Your task to perform on an android device: Search for the best custom wallets on Etsy. Image 0: 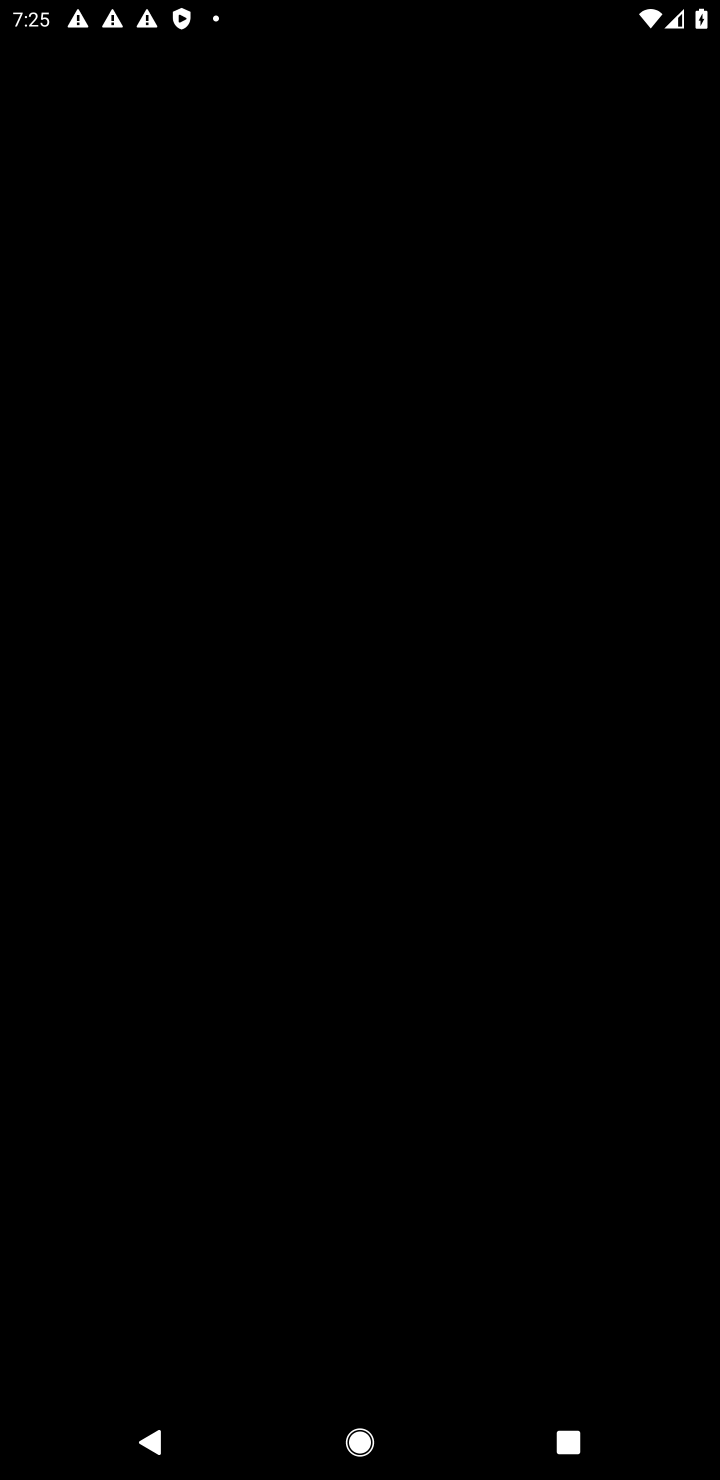
Step 0: press home button
Your task to perform on an android device: Search for the best custom wallets on Etsy. Image 1: 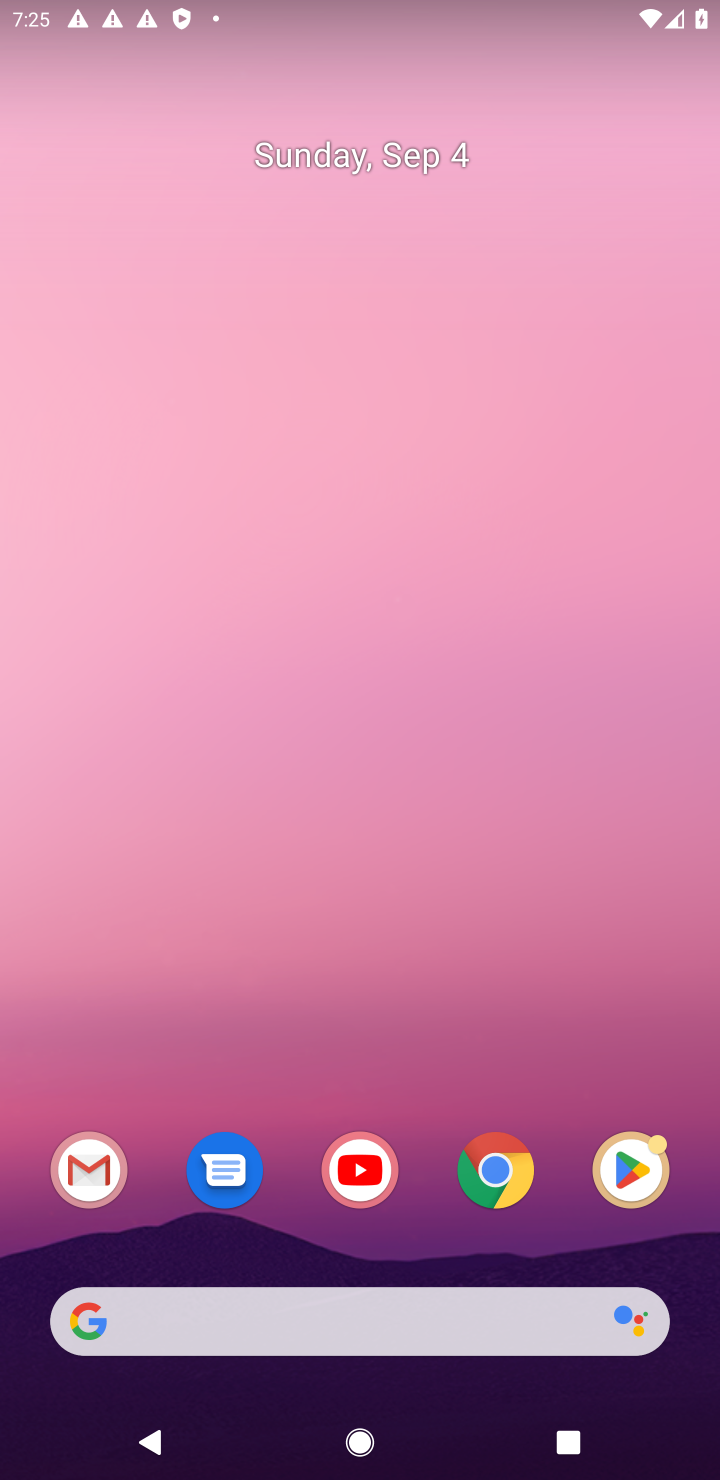
Step 1: click (492, 1176)
Your task to perform on an android device: Search for the best custom wallets on Etsy. Image 2: 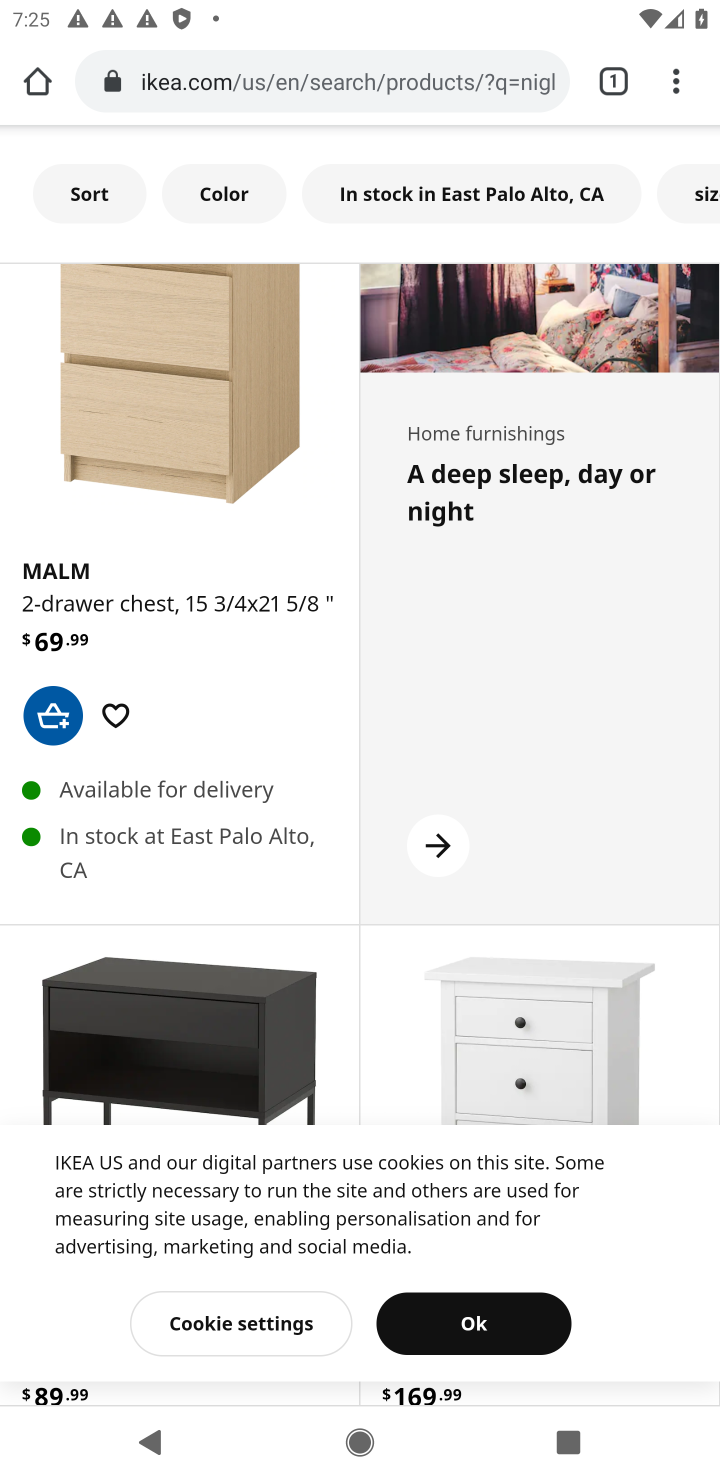
Step 2: click (400, 75)
Your task to perform on an android device: Search for the best custom wallets on Etsy. Image 3: 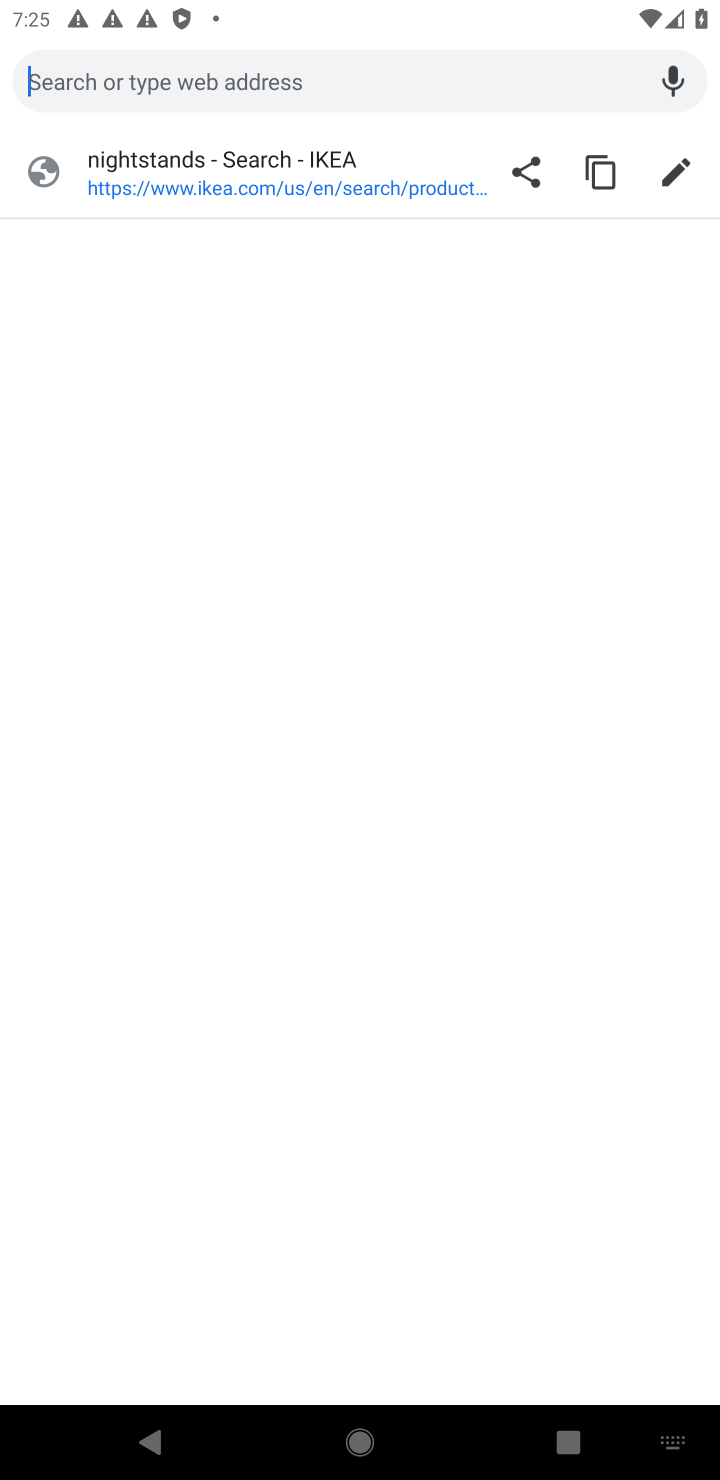
Step 3: type "Etsy"
Your task to perform on an android device: Search for the best custom wallets on Etsy. Image 4: 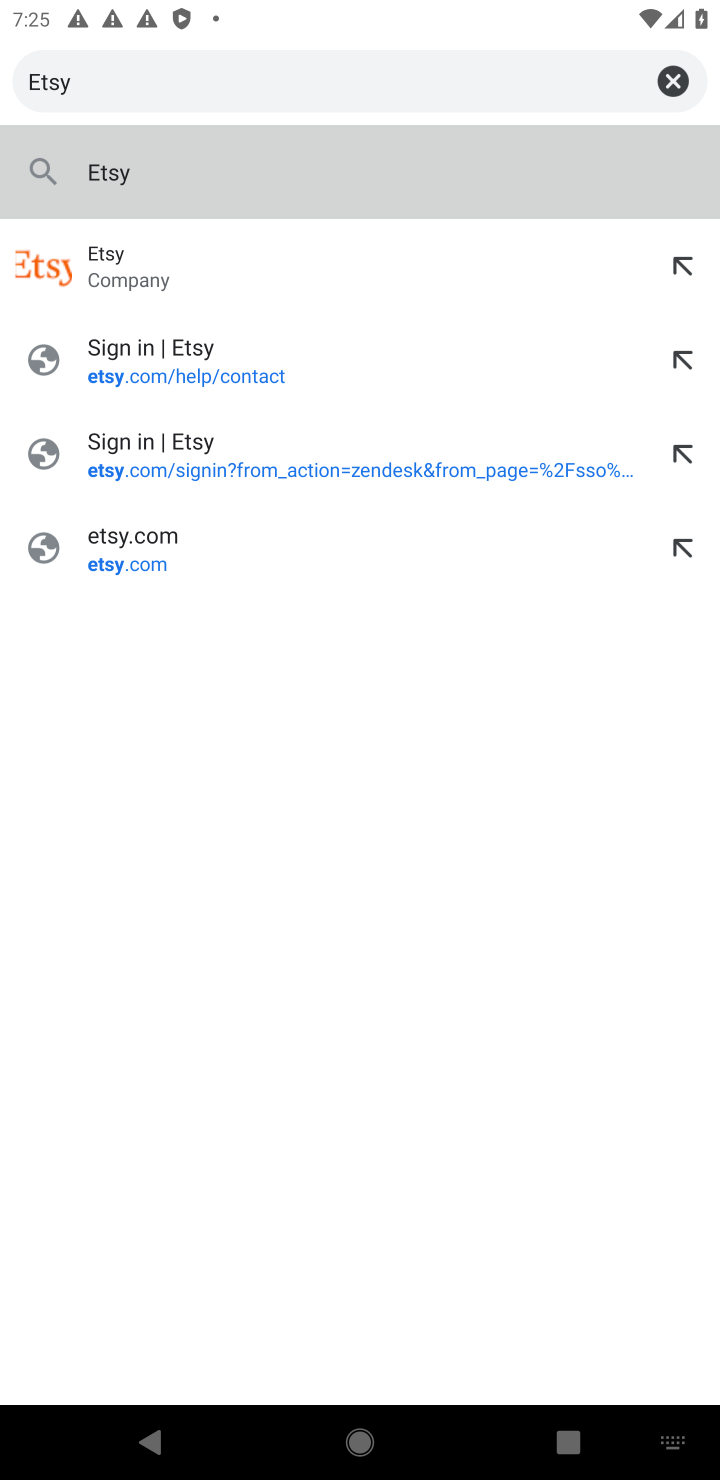
Step 4: click (121, 173)
Your task to perform on an android device: Search for the best custom wallets on Etsy. Image 5: 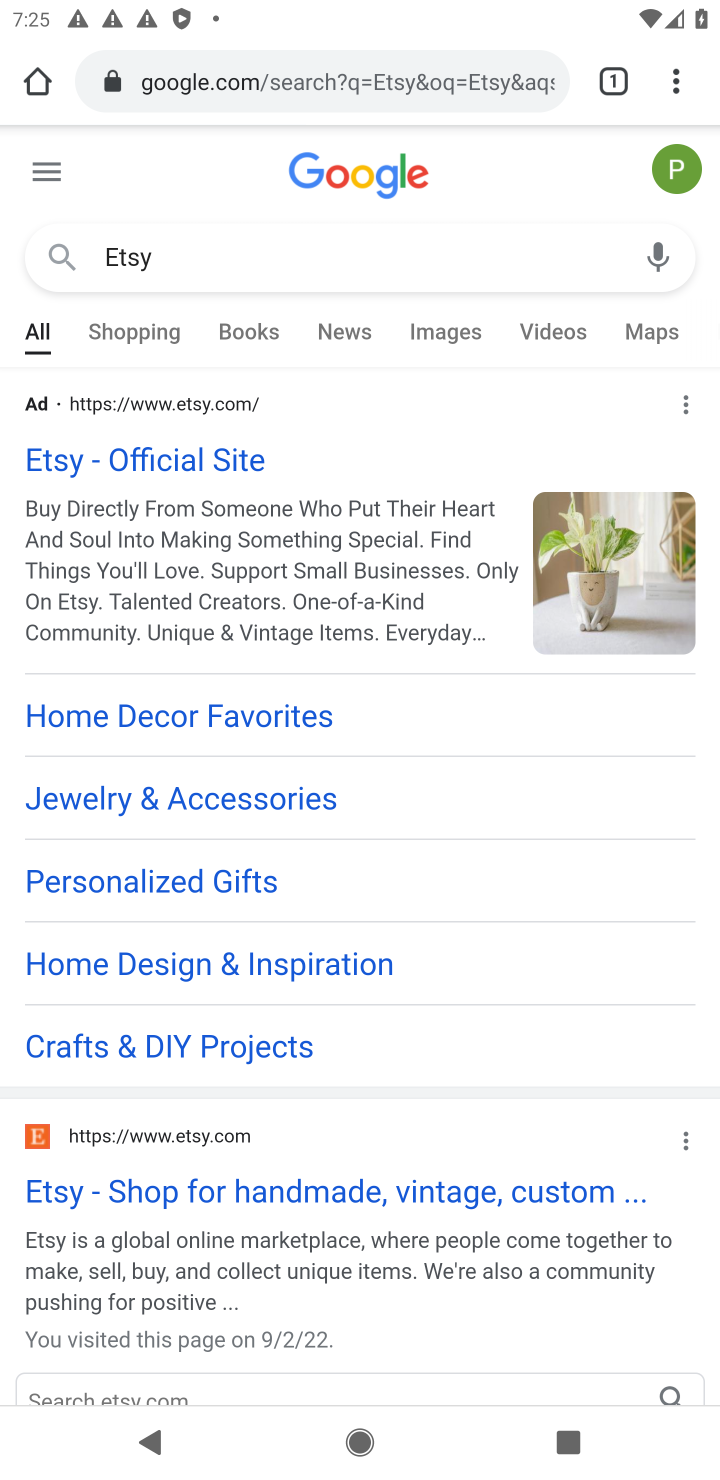
Step 5: click (203, 467)
Your task to perform on an android device: Search for the best custom wallets on Etsy. Image 6: 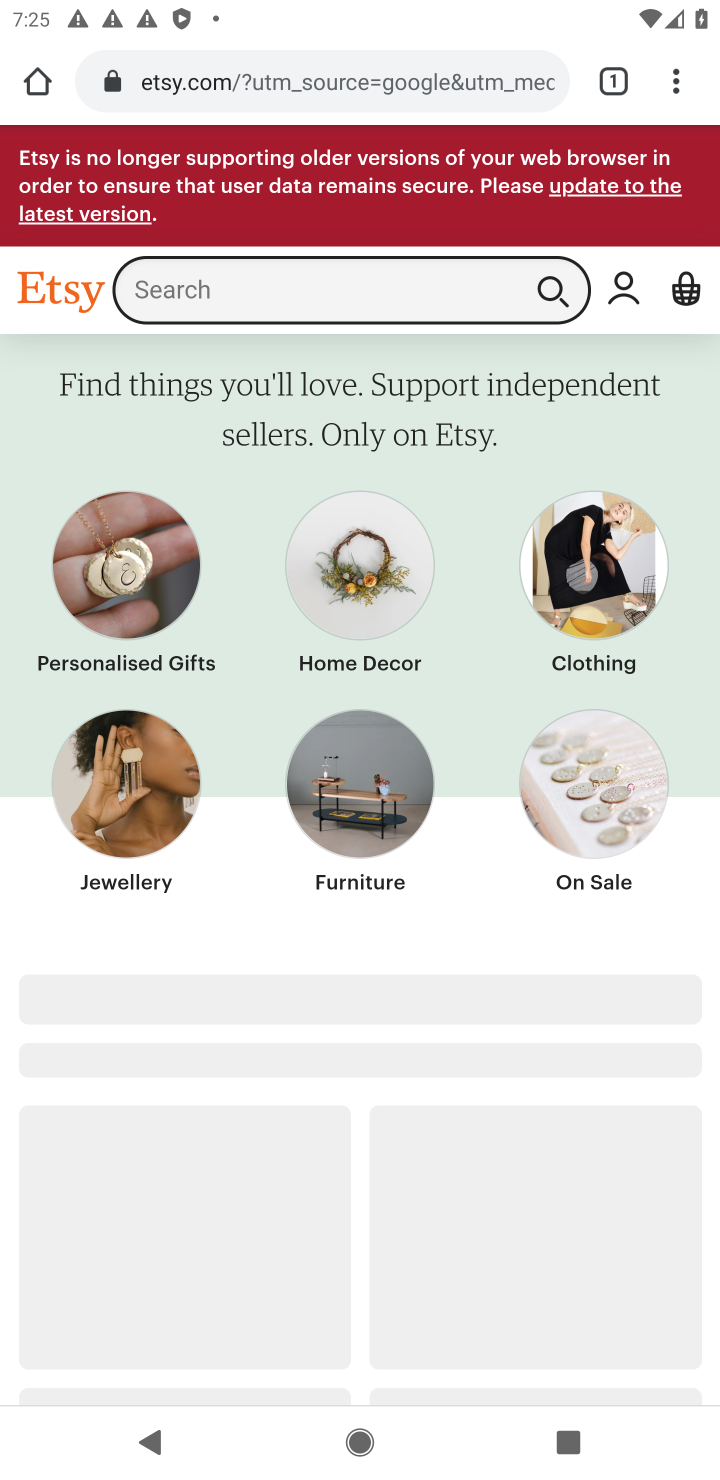
Step 6: click (279, 291)
Your task to perform on an android device: Search for the best custom wallets on Etsy. Image 7: 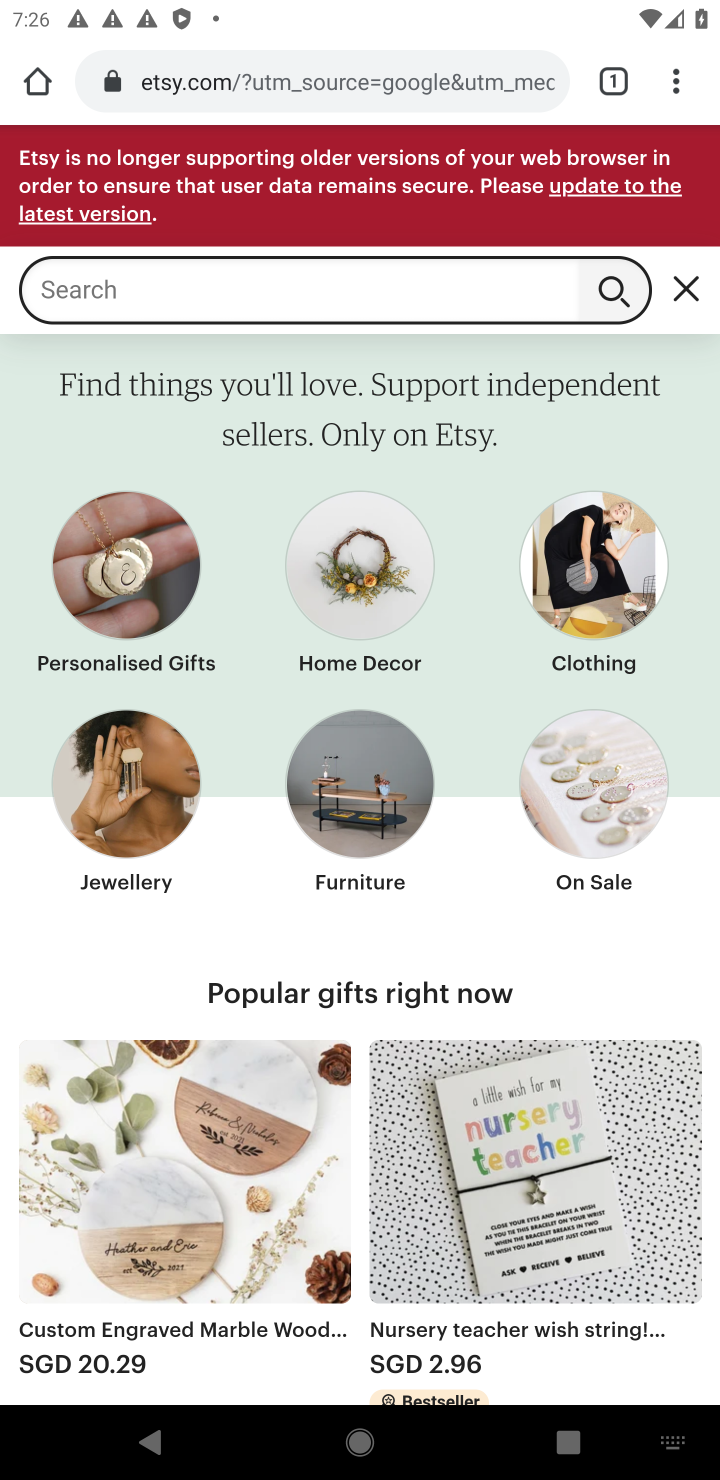
Step 7: type "best custom wallets"
Your task to perform on an android device: Search for the best custom wallets on Etsy. Image 8: 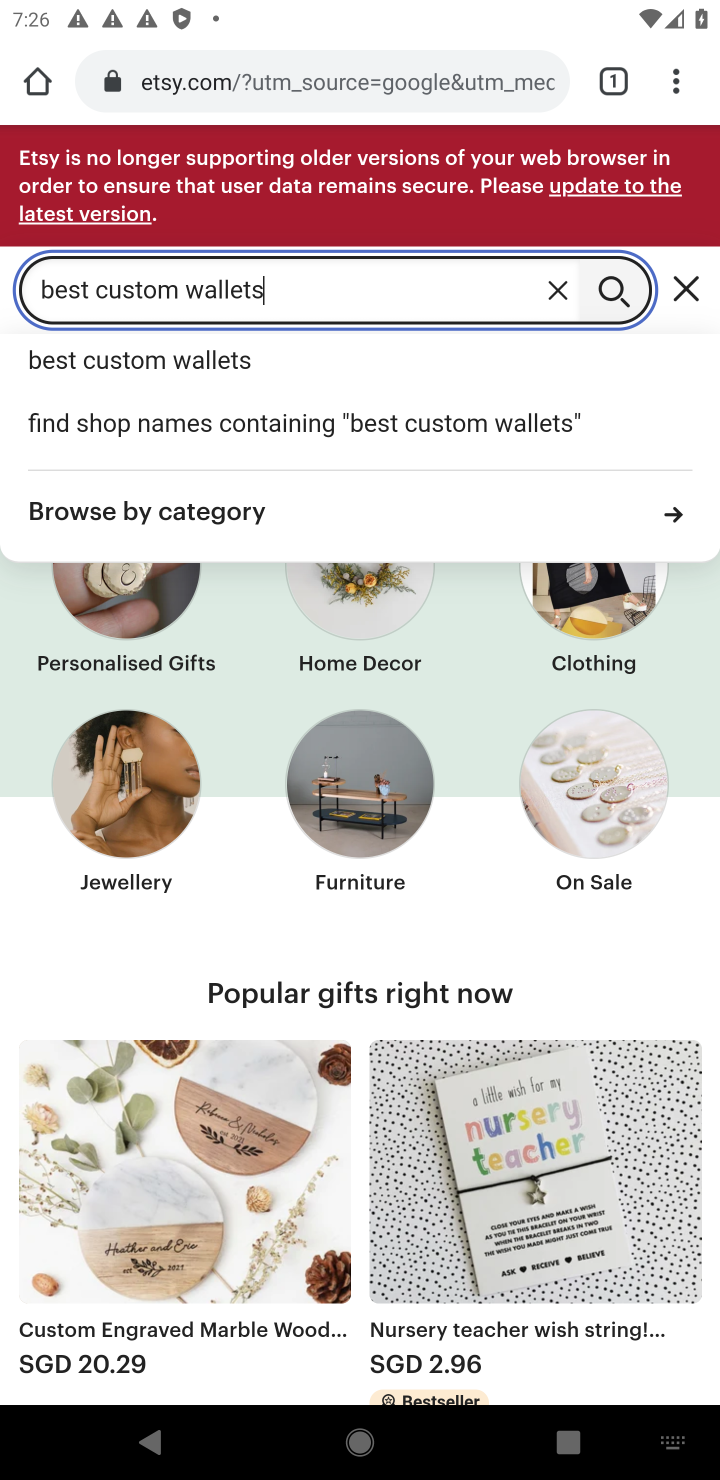
Step 8: click (199, 361)
Your task to perform on an android device: Search for the best custom wallets on Etsy. Image 9: 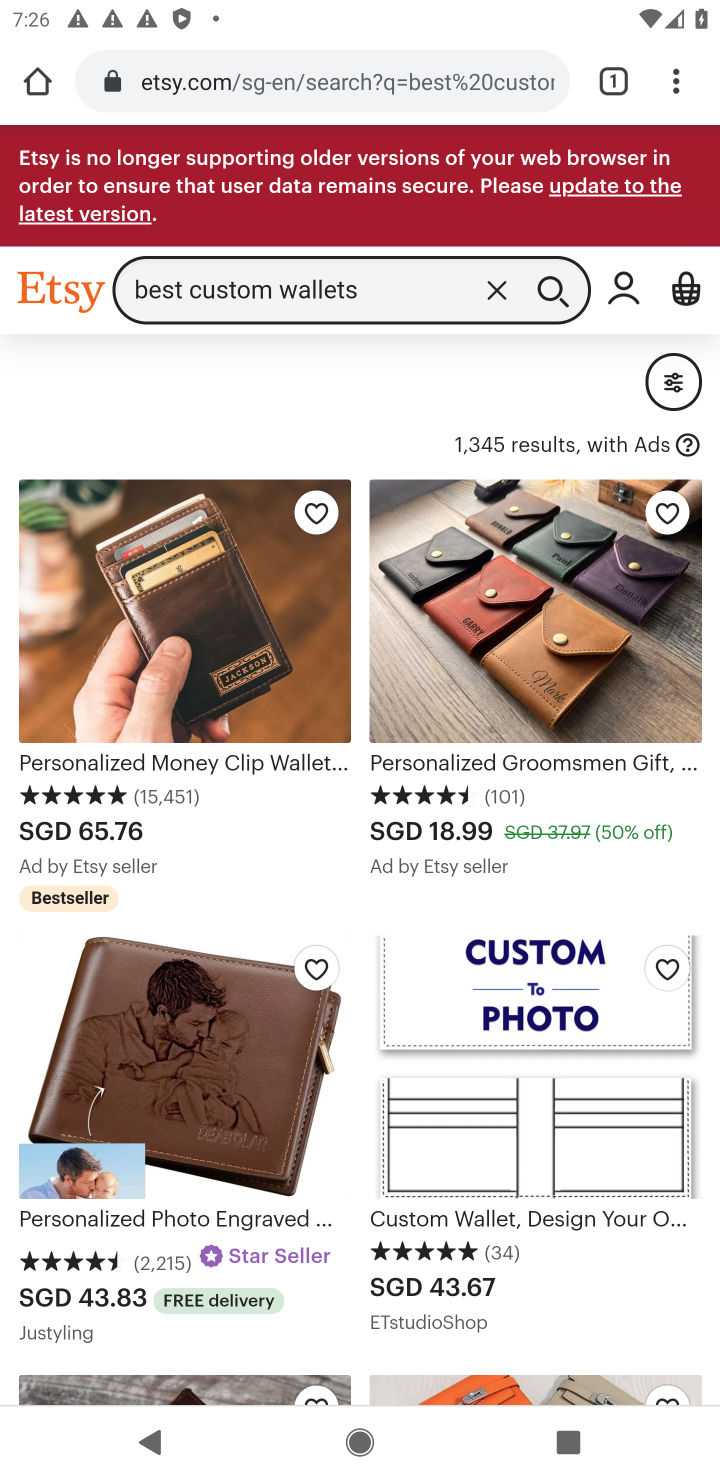
Step 9: task complete